Your task to perform on an android device: Go to settings Image 0: 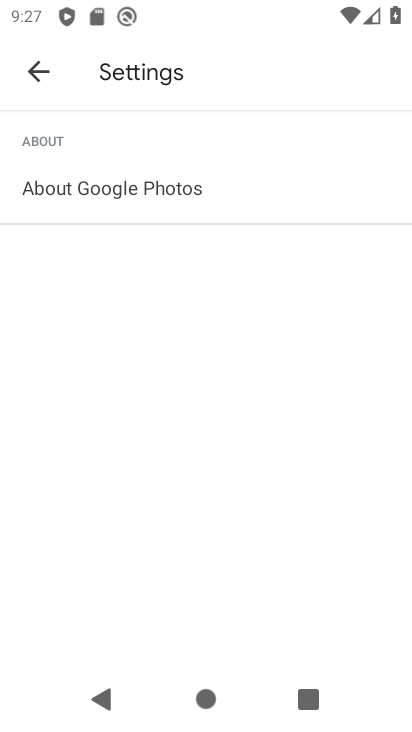
Step 0: drag from (334, 527) to (308, 245)
Your task to perform on an android device: Go to settings Image 1: 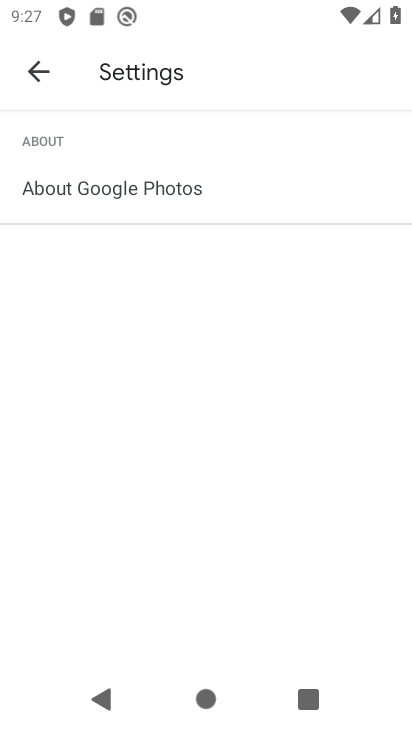
Step 1: press home button
Your task to perform on an android device: Go to settings Image 2: 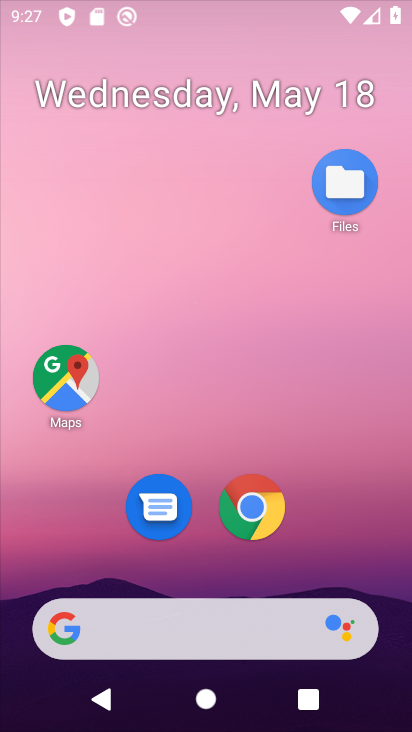
Step 2: drag from (338, 554) to (307, 172)
Your task to perform on an android device: Go to settings Image 3: 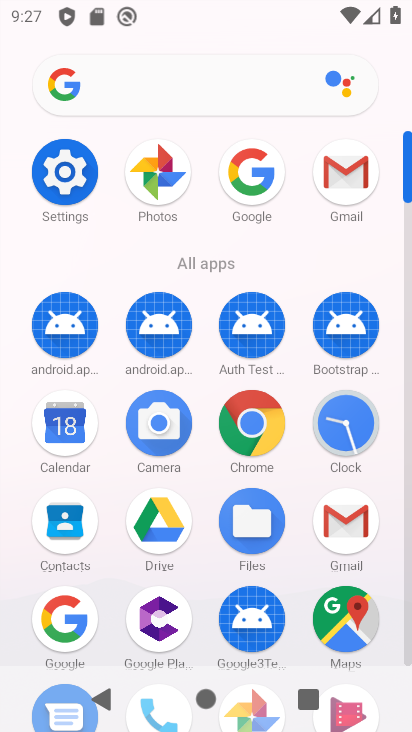
Step 3: click (54, 168)
Your task to perform on an android device: Go to settings Image 4: 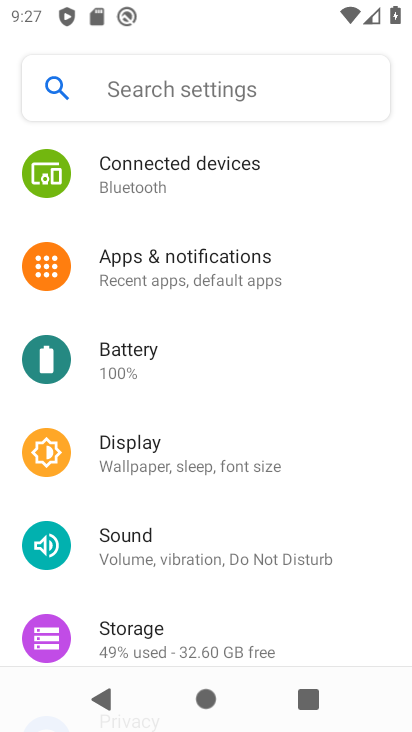
Step 4: task complete